Your task to perform on an android device: turn off wifi Image 0: 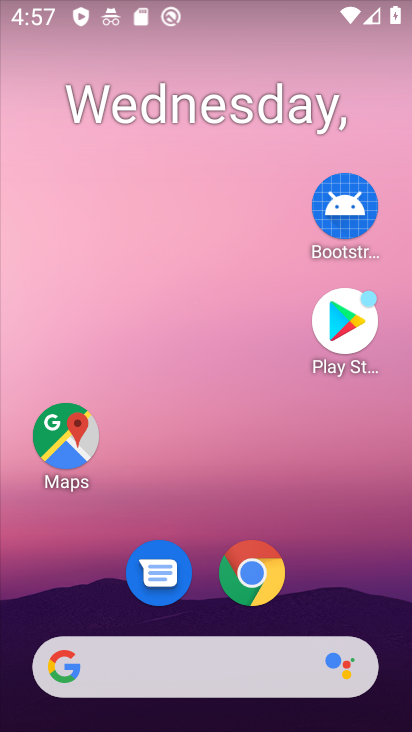
Step 0: drag from (310, 22) to (266, 481)
Your task to perform on an android device: turn off wifi Image 1: 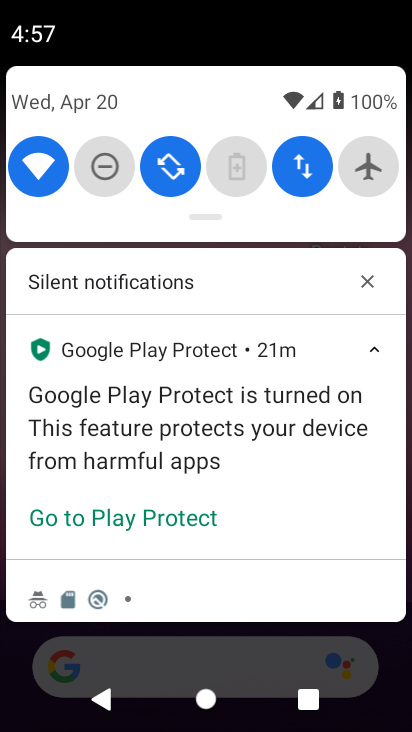
Step 1: click (49, 162)
Your task to perform on an android device: turn off wifi Image 2: 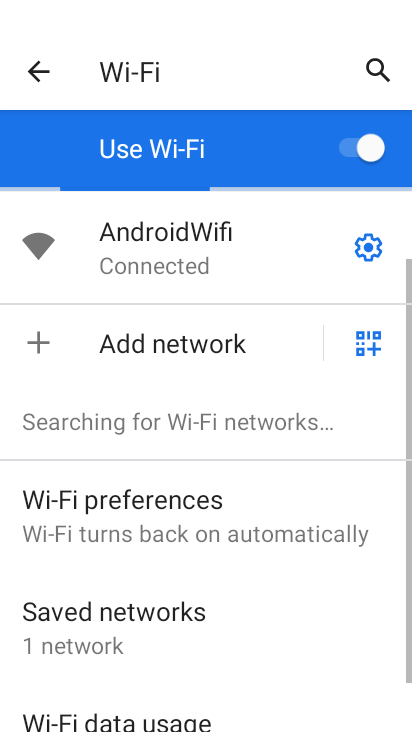
Step 2: task complete